Your task to perform on an android device: toggle priority inbox in the gmail app Image 0: 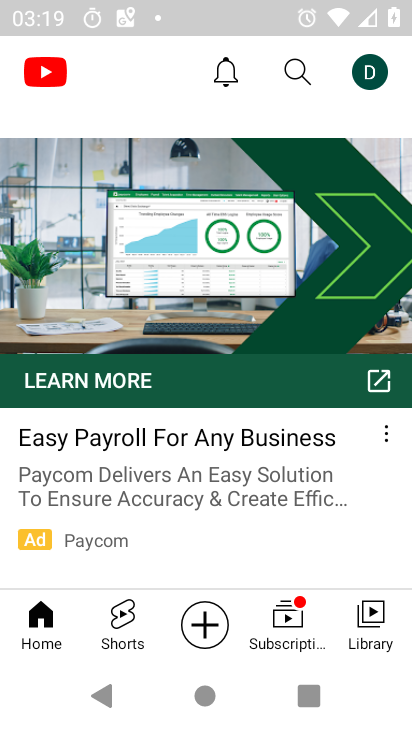
Step 0: press home button
Your task to perform on an android device: toggle priority inbox in the gmail app Image 1: 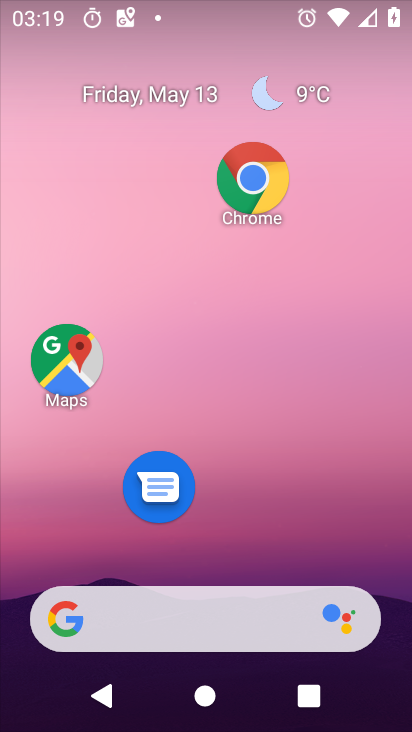
Step 1: drag from (286, 540) to (346, 28)
Your task to perform on an android device: toggle priority inbox in the gmail app Image 2: 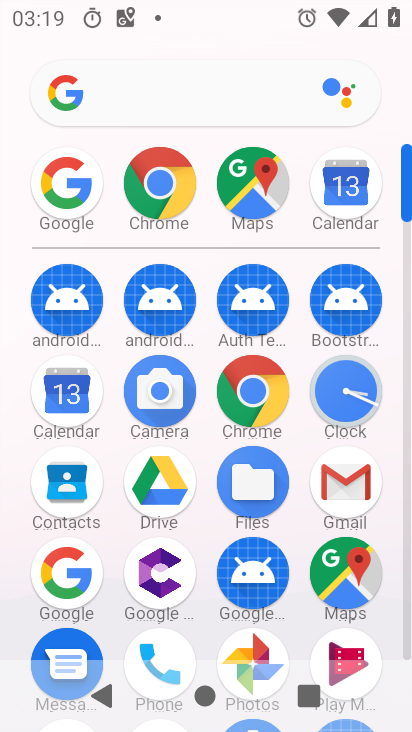
Step 2: click (356, 484)
Your task to perform on an android device: toggle priority inbox in the gmail app Image 3: 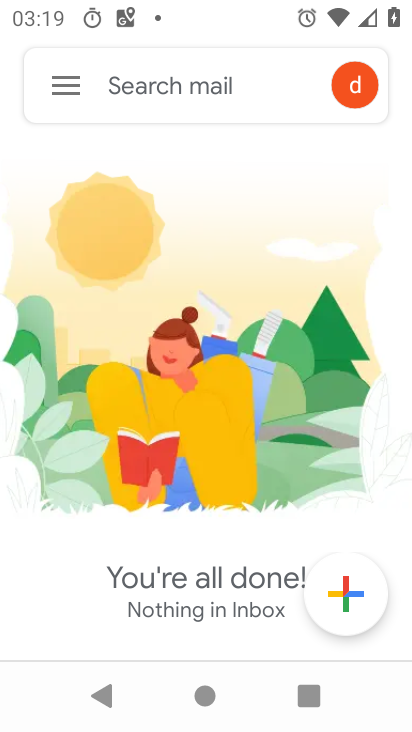
Step 3: click (56, 91)
Your task to perform on an android device: toggle priority inbox in the gmail app Image 4: 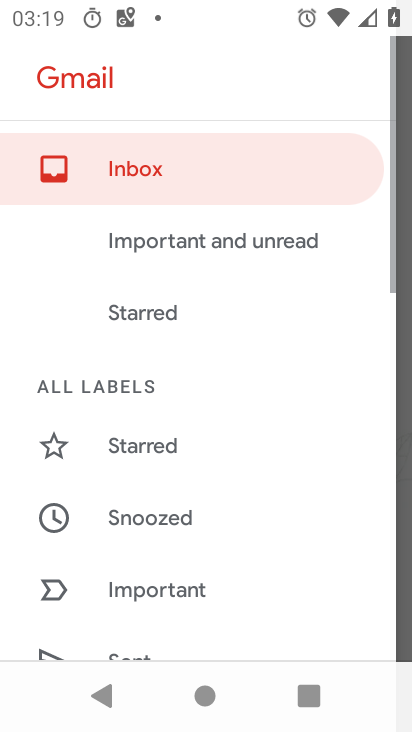
Step 4: drag from (218, 525) to (193, 18)
Your task to perform on an android device: toggle priority inbox in the gmail app Image 5: 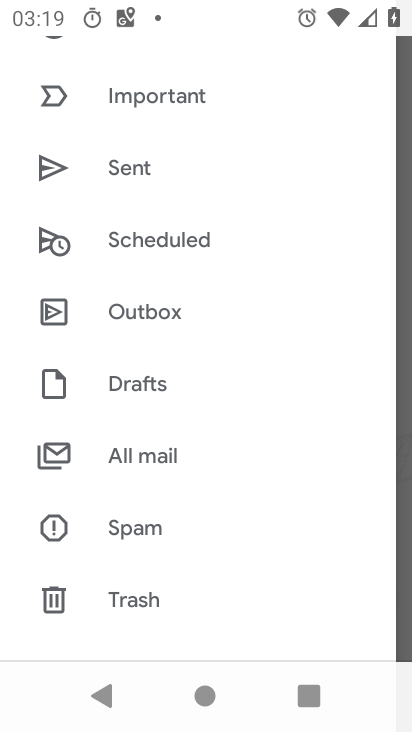
Step 5: drag from (220, 512) to (189, 82)
Your task to perform on an android device: toggle priority inbox in the gmail app Image 6: 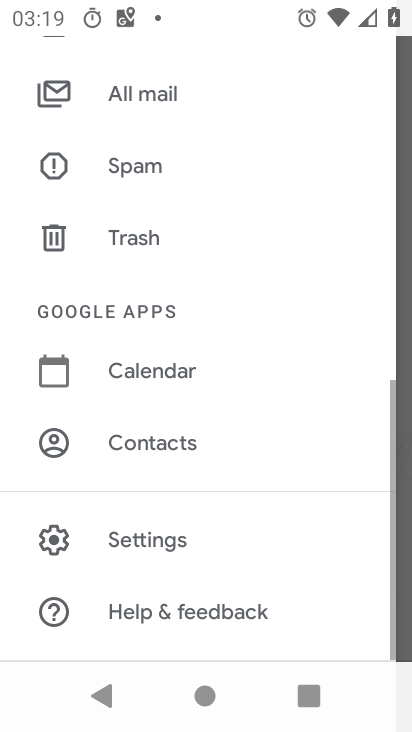
Step 6: click (148, 545)
Your task to perform on an android device: toggle priority inbox in the gmail app Image 7: 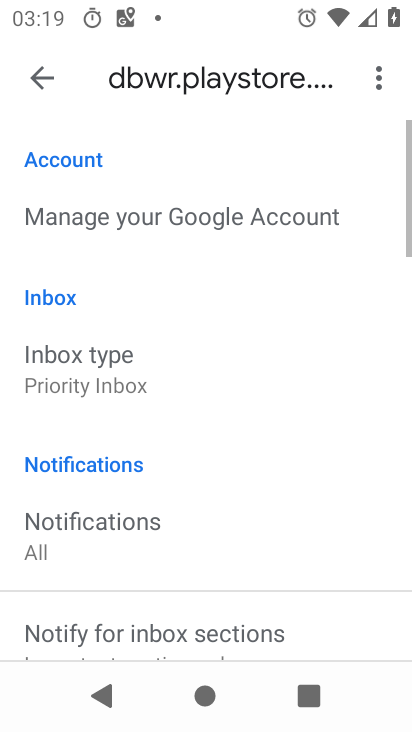
Step 7: drag from (219, 553) to (218, 503)
Your task to perform on an android device: toggle priority inbox in the gmail app Image 8: 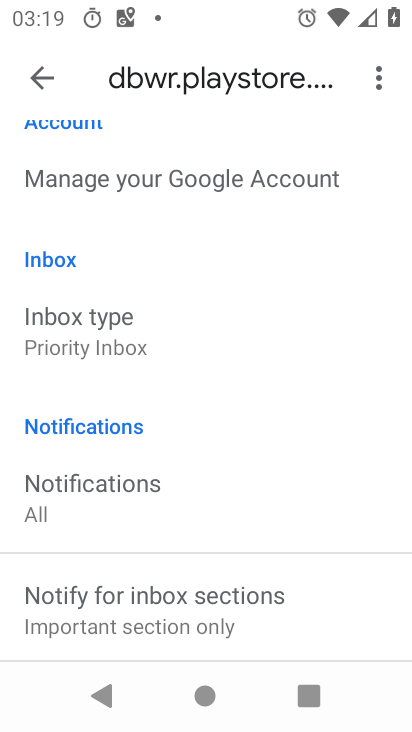
Step 8: click (167, 350)
Your task to perform on an android device: toggle priority inbox in the gmail app Image 9: 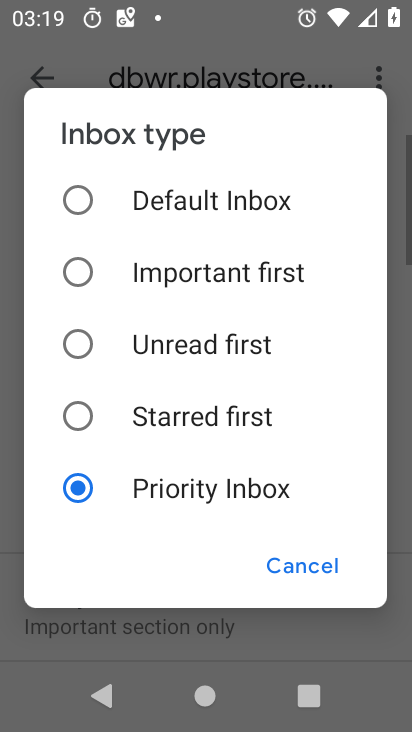
Step 9: click (57, 194)
Your task to perform on an android device: toggle priority inbox in the gmail app Image 10: 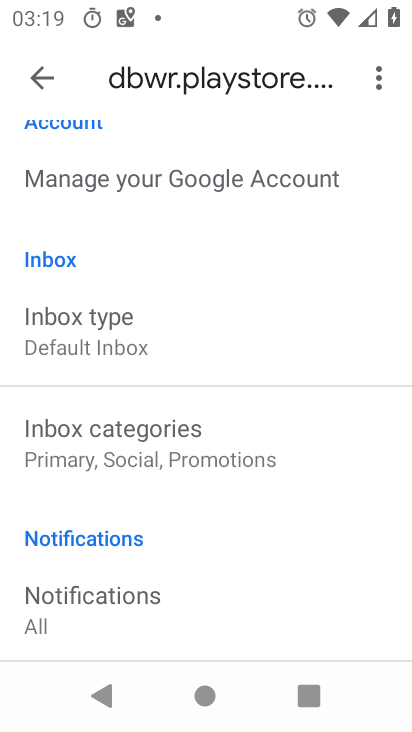
Step 10: task complete